Your task to perform on an android device: Is it going to rain tomorrow? Image 0: 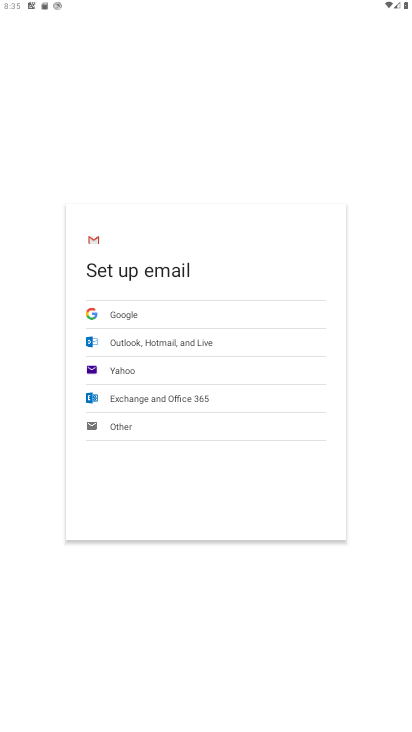
Step 0: press home button
Your task to perform on an android device: Is it going to rain tomorrow? Image 1: 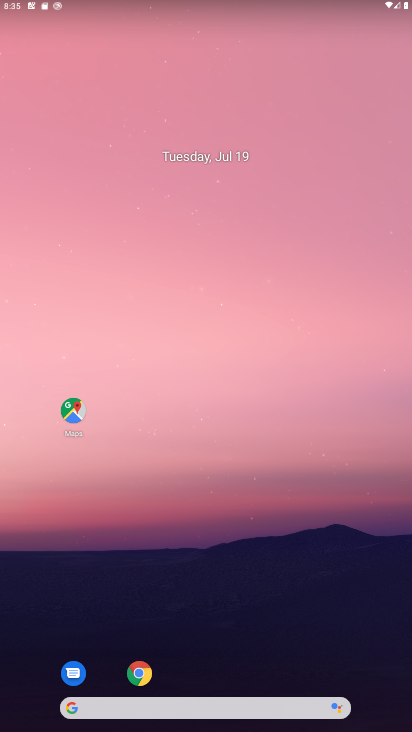
Step 1: click (158, 704)
Your task to perform on an android device: Is it going to rain tomorrow? Image 2: 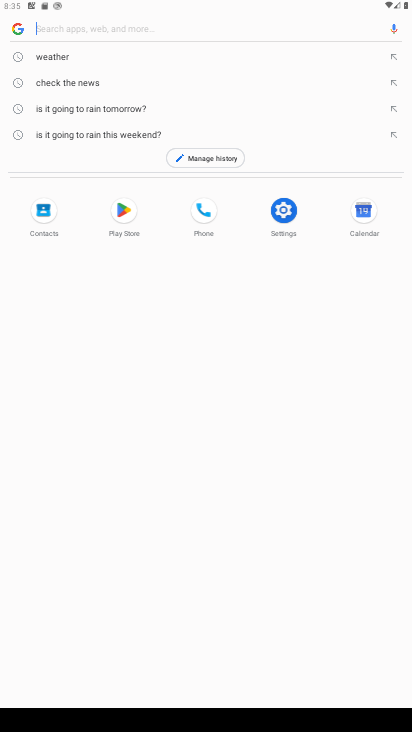
Step 2: click (59, 56)
Your task to perform on an android device: Is it going to rain tomorrow? Image 3: 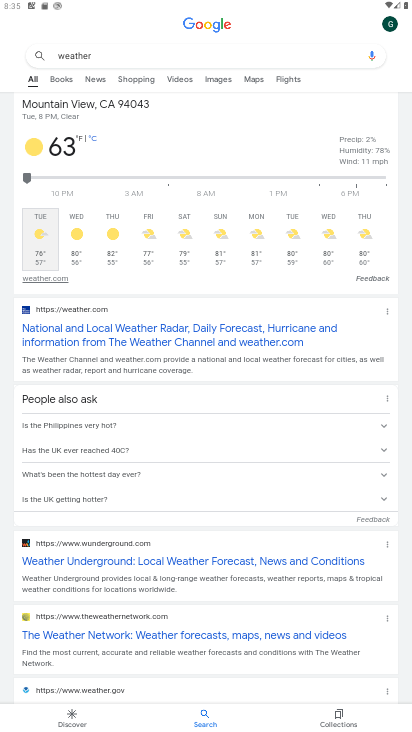
Step 3: task complete